Your task to perform on an android device: Check the weather Image 0: 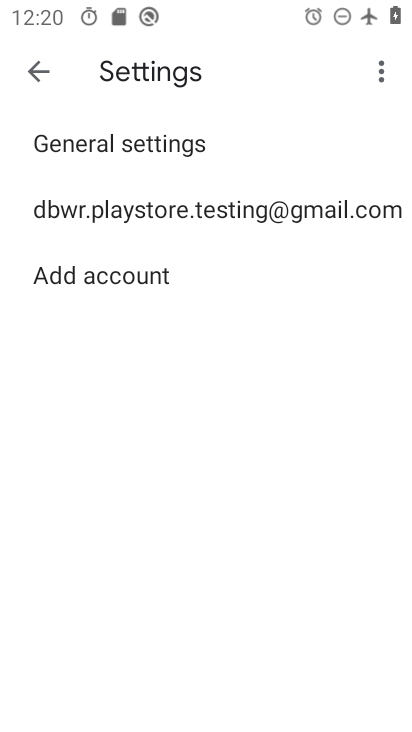
Step 0: press home button
Your task to perform on an android device: Check the weather Image 1: 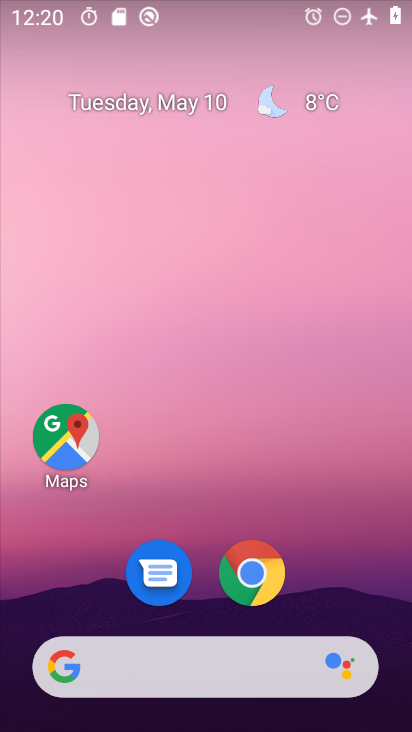
Step 1: click (327, 102)
Your task to perform on an android device: Check the weather Image 2: 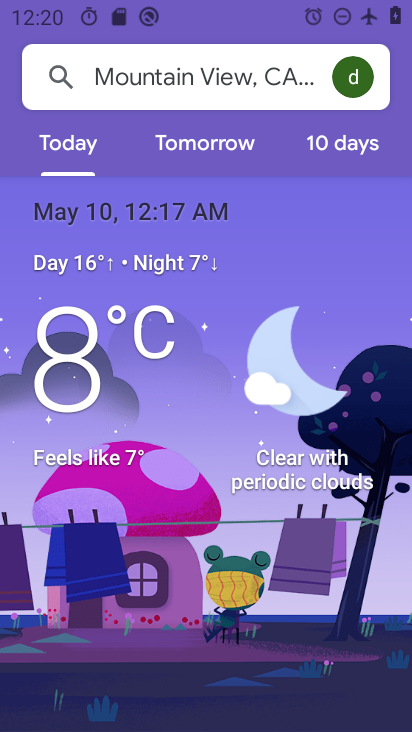
Step 2: task complete